Your task to perform on an android device: Turn off the flashlight Image 0: 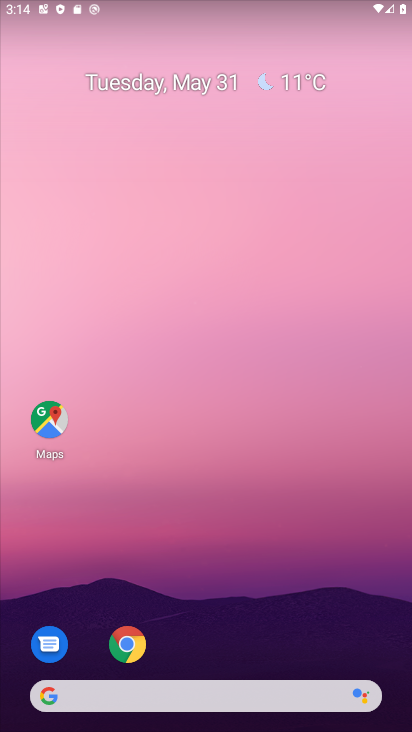
Step 0: drag from (301, 603) to (407, 131)
Your task to perform on an android device: Turn off the flashlight Image 1: 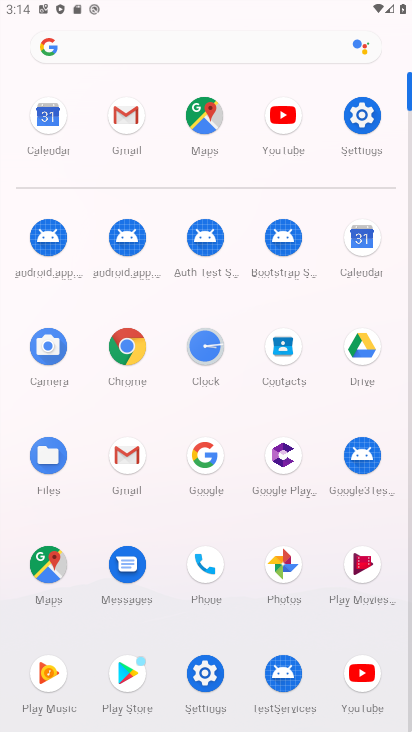
Step 1: click (371, 109)
Your task to perform on an android device: Turn off the flashlight Image 2: 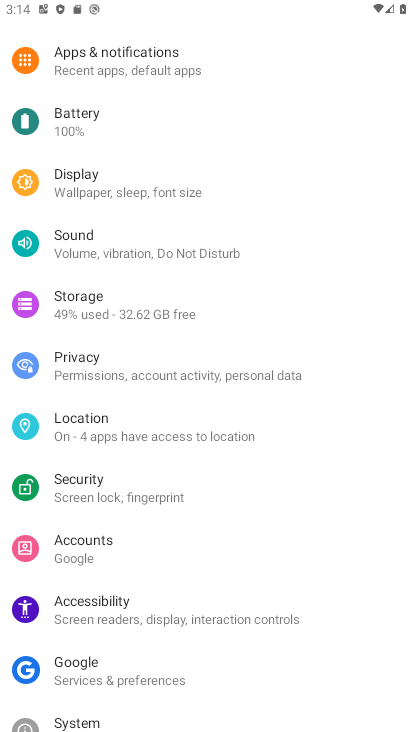
Step 2: click (126, 180)
Your task to perform on an android device: Turn off the flashlight Image 3: 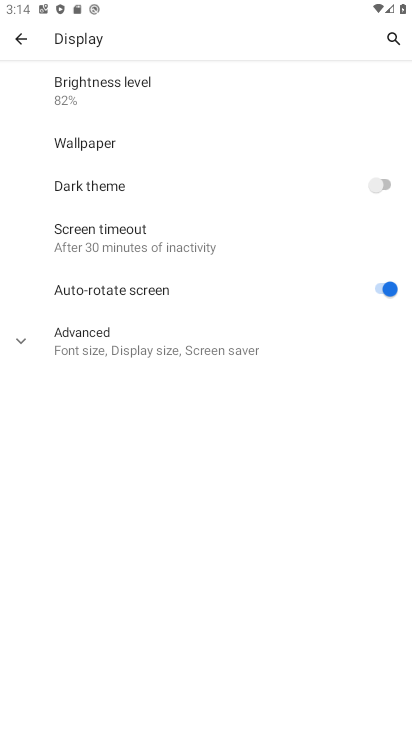
Step 3: click (109, 327)
Your task to perform on an android device: Turn off the flashlight Image 4: 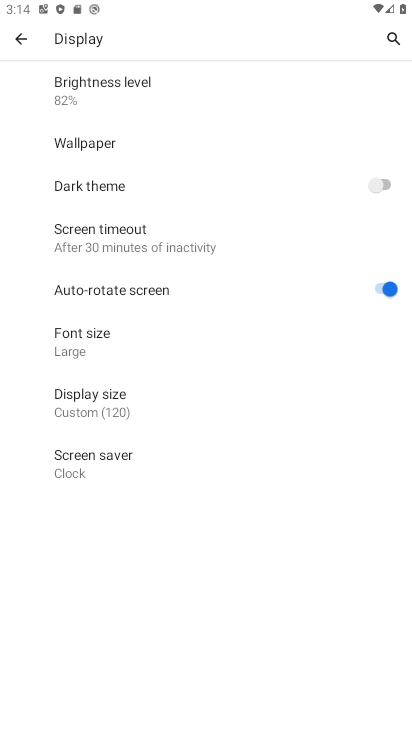
Step 4: task complete